Your task to perform on an android device: Open calendar and show me the fourth week of next month Image 0: 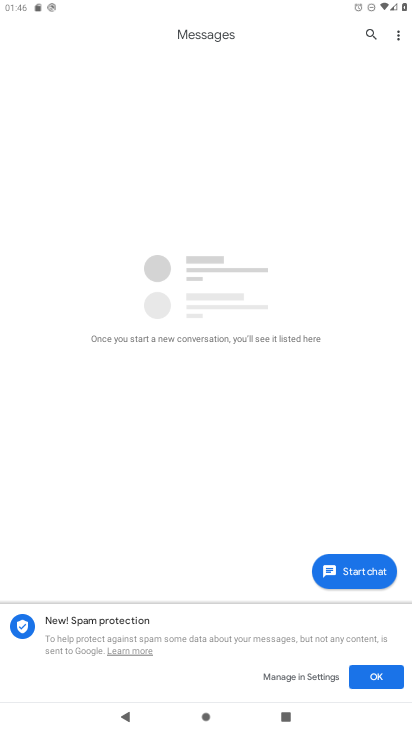
Step 0: press home button
Your task to perform on an android device: Open calendar and show me the fourth week of next month Image 1: 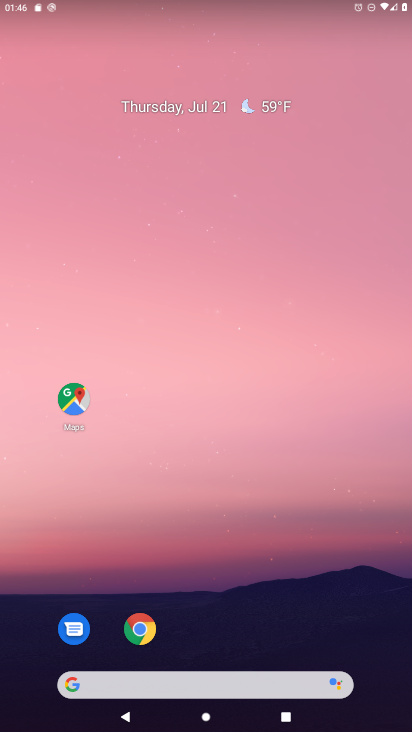
Step 1: drag from (388, 674) to (349, 134)
Your task to perform on an android device: Open calendar and show me the fourth week of next month Image 2: 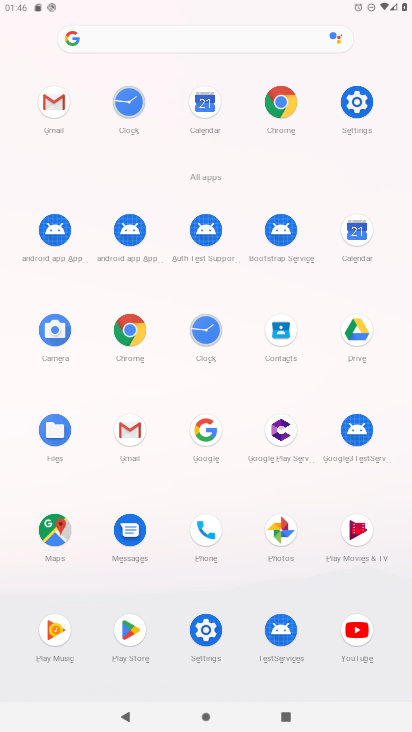
Step 2: click (356, 230)
Your task to perform on an android device: Open calendar and show me the fourth week of next month Image 3: 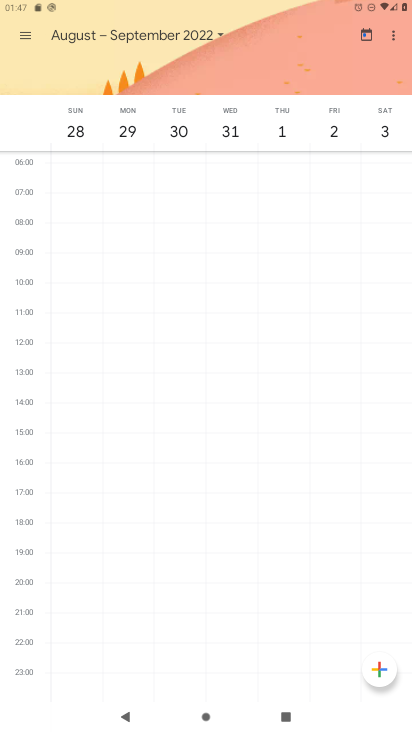
Step 3: click (220, 34)
Your task to perform on an android device: Open calendar and show me the fourth week of next month Image 4: 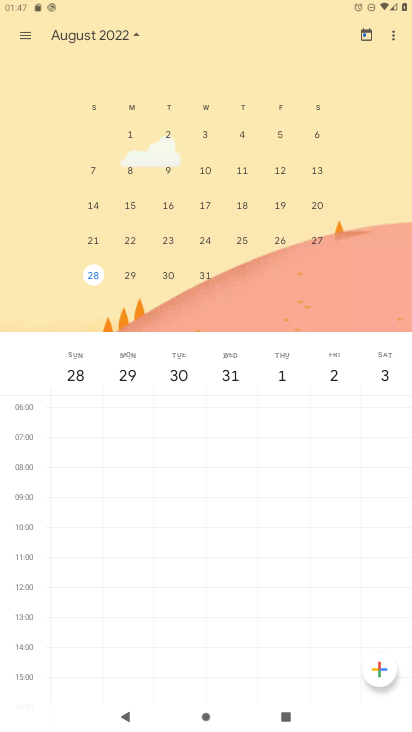
Step 4: click (95, 278)
Your task to perform on an android device: Open calendar and show me the fourth week of next month Image 5: 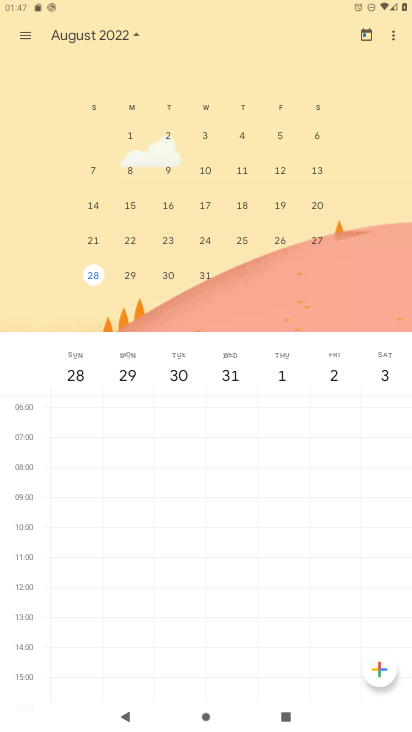
Step 5: task complete